Your task to perform on an android device: Set the phone to "Do not disturb". Image 0: 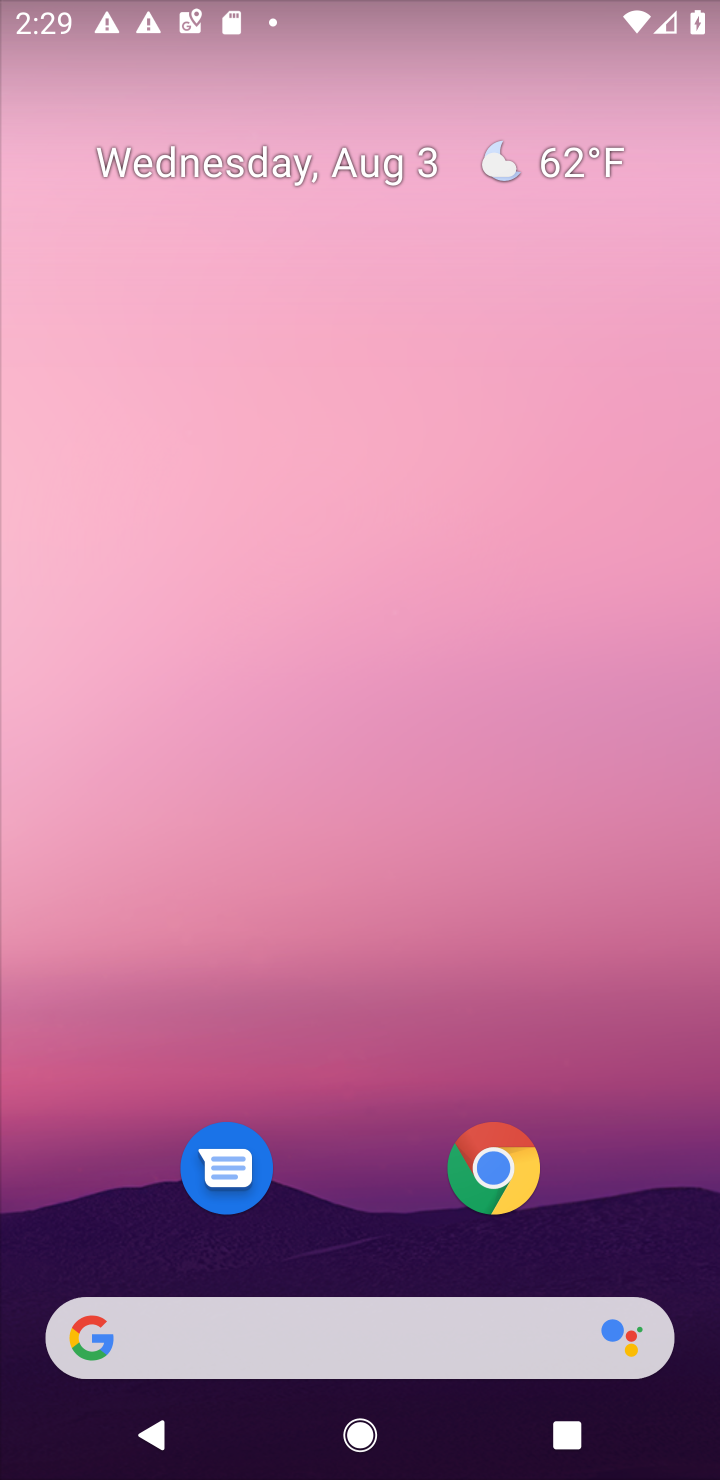
Step 0: drag from (667, 1223) to (612, 307)
Your task to perform on an android device: Set the phone to "Do not disturb". Image 1: 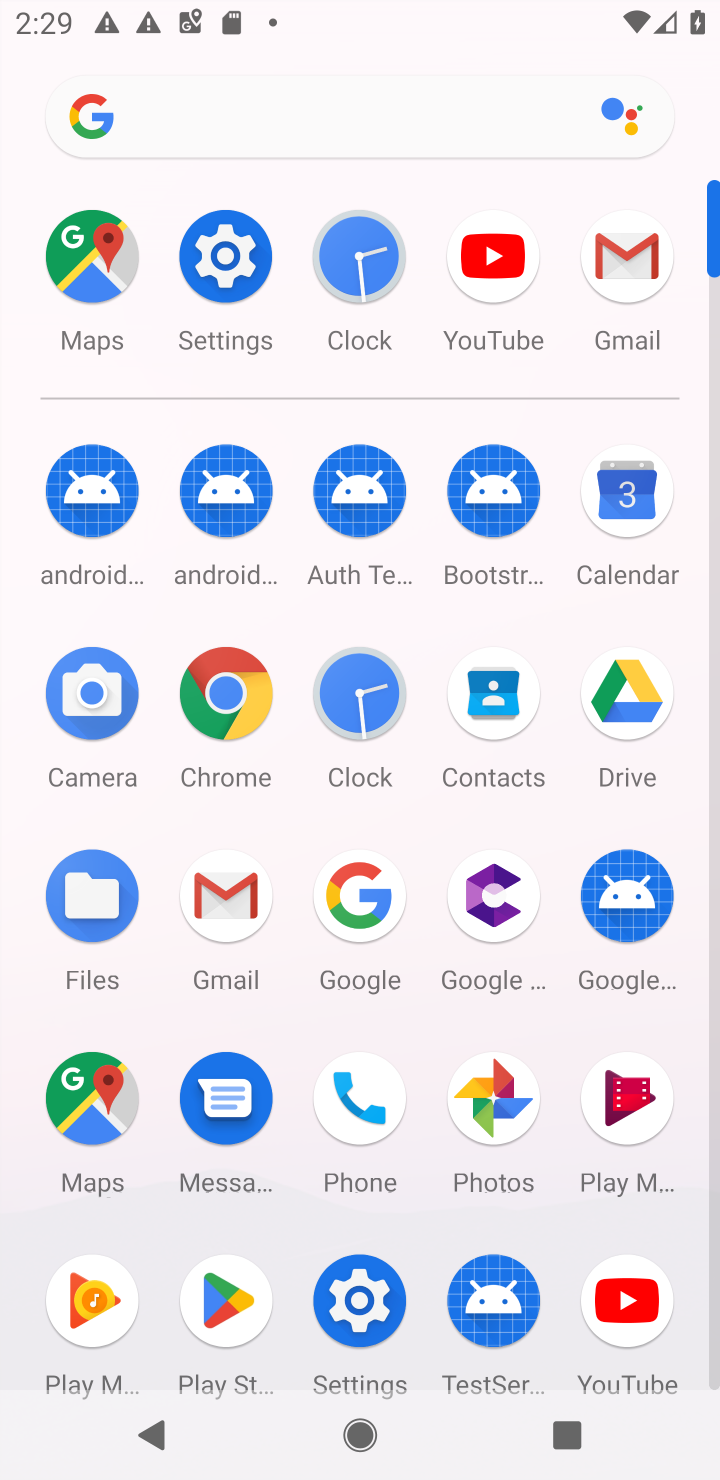
Step 1: click (366, 1304)
Your task to perform on an android device: Set the phone to "Do not disturb". Image 2: 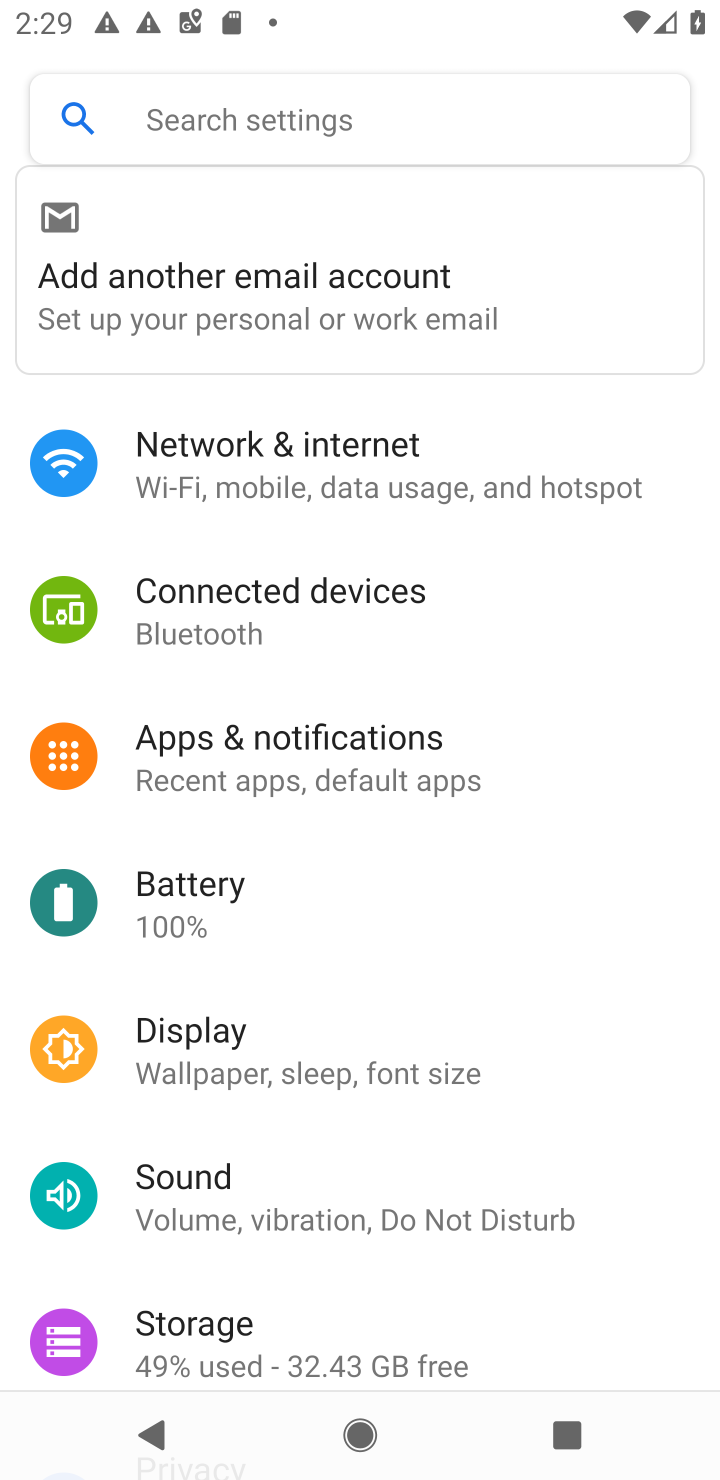
Step 2: click (188, 1203)
Your task to perform on an android device: Set the phone to "Do not disturb". Image 3: 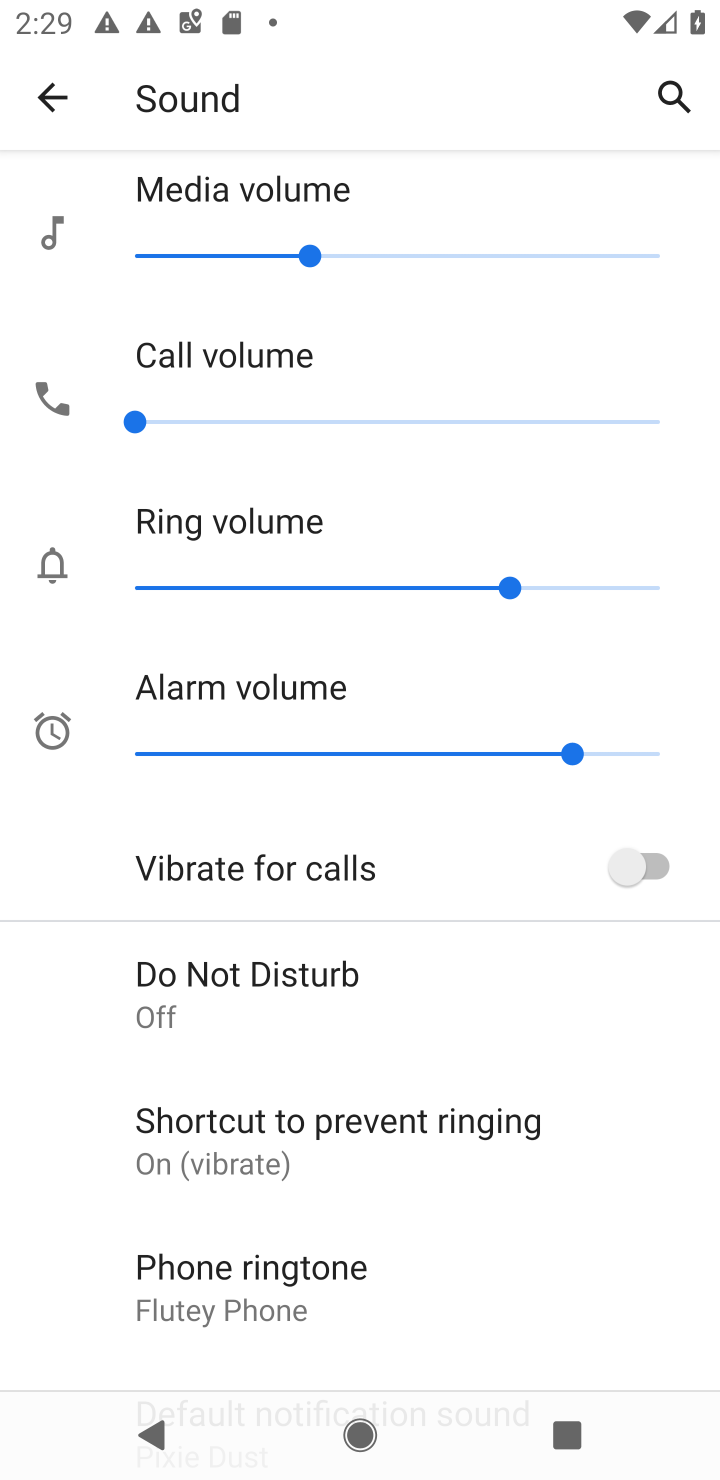
Step 3: click (177, 969)
Your task to perform on an android device: Set the phone to "Do not disturb". Image 4: 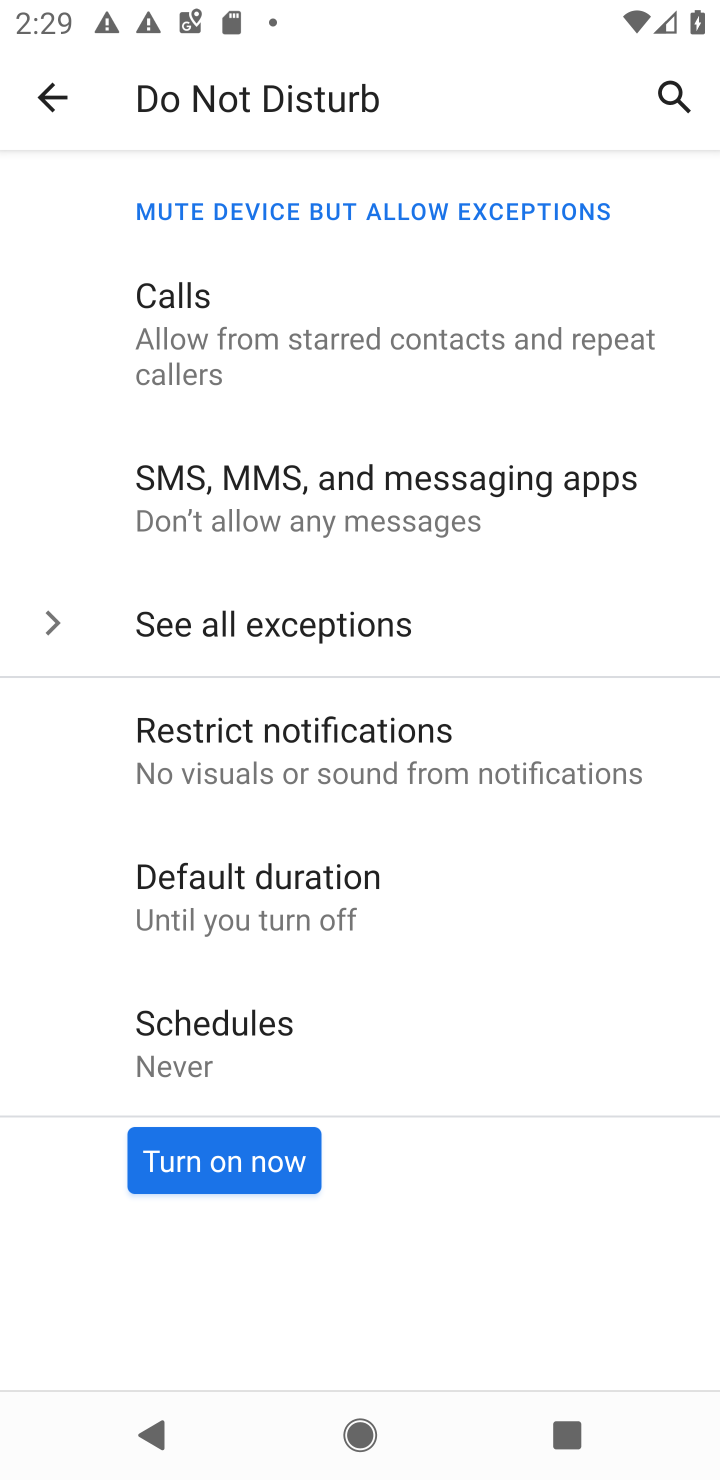
Step 4: click (216, 1166)
Your task to perform on an android device: Set the phone to "Do not disturb". Image 5: 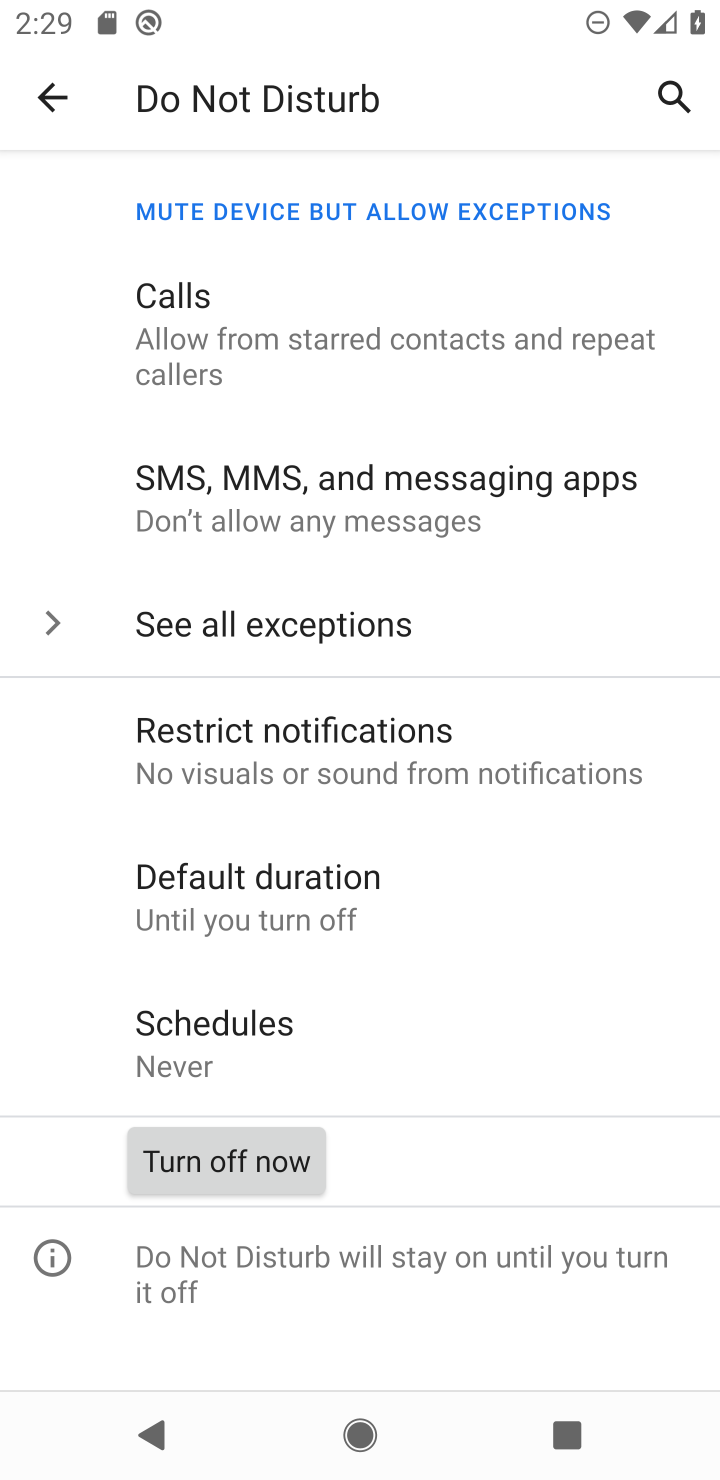
Step 5: task complete